Your task to perform on an android device: Go to Yahoo.com Image 0: 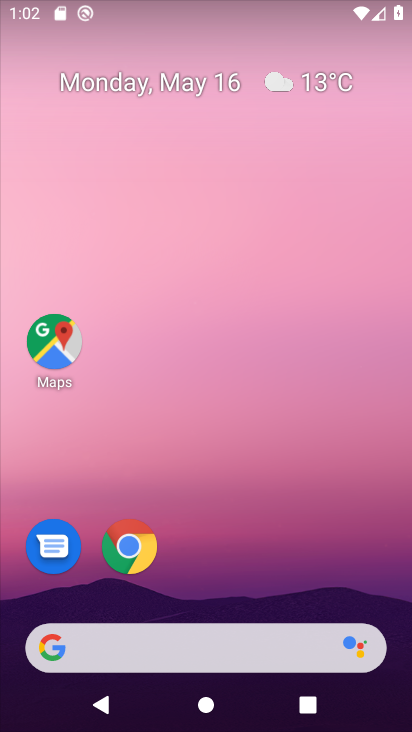
Step 0: click (131, 537)
Your task to perform on an android device: Go to Yahoo.com Image 1: 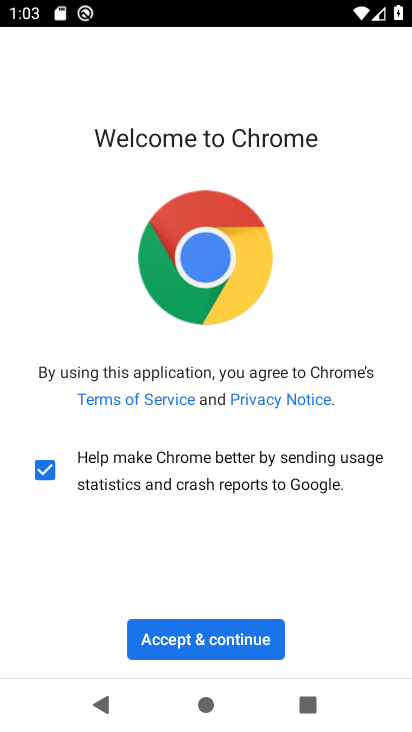
Step 1: click (234, 633)
Your task to perform on an android device: Go to Yahoo.com Image 2: 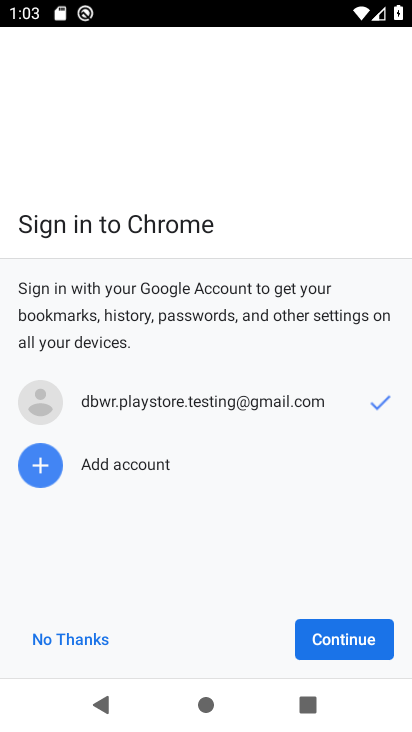
Step 2: click (353, 632)
Your task to perform on an android device: Go to Yahoo.com Image 3: 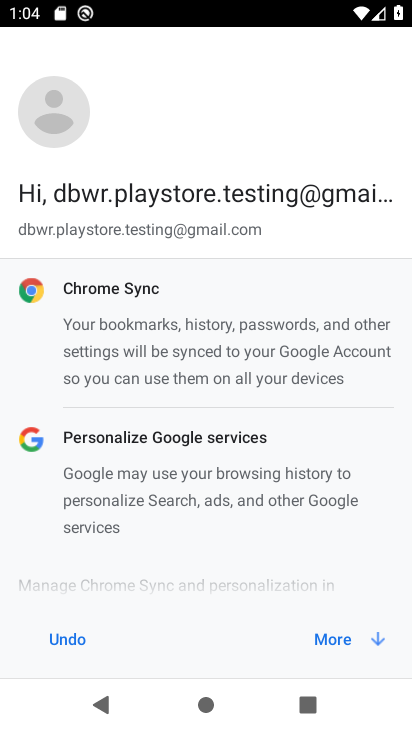
Step 3: click (314, 638)
Your task to perform on an android device: Go to Yahoo.com Image 4: 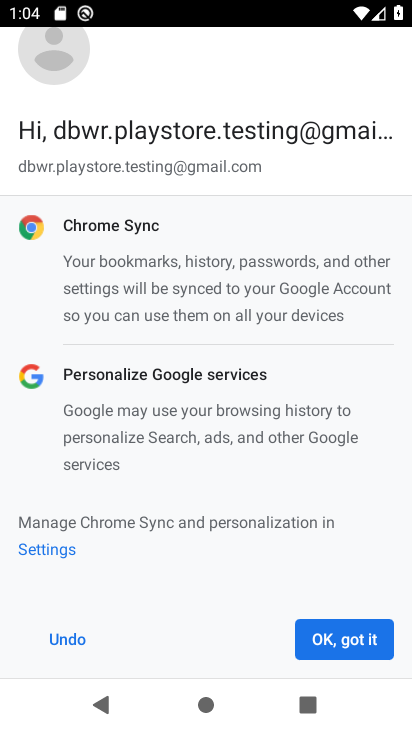
Step 4: click (333, 637)
Your task to perform on an android device: Go to Yahoo.com Image 5: 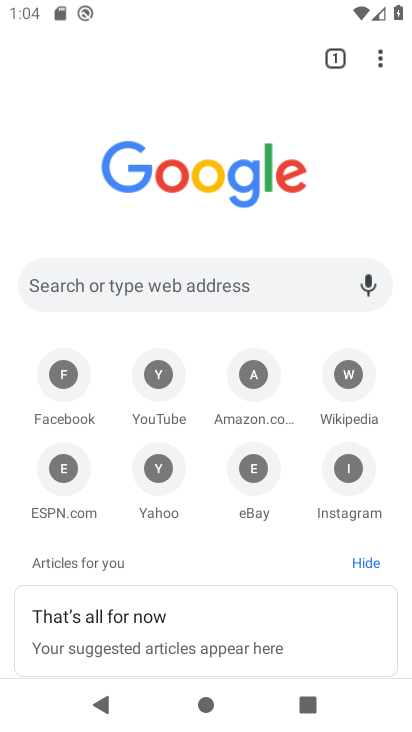
Step 5: click (222, 288)
Your task to perform on an android device: Go to Yahoo.com Image 6: 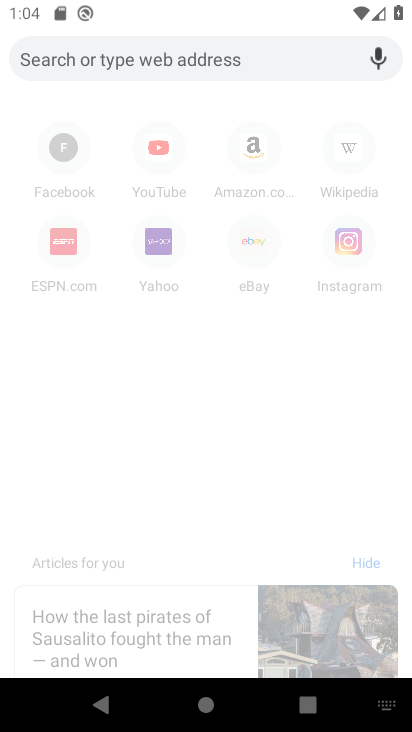
Step 6: type "yahoo.com"
Your task to perform on an android device: Go to Yahoo.com Image 7: 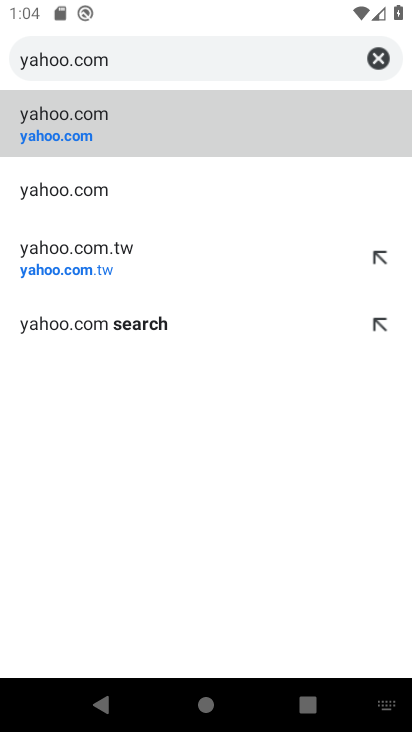
Step 7: click (80, 115)
Your task to perform on an android device: Go to Yahoo.com Image 8: 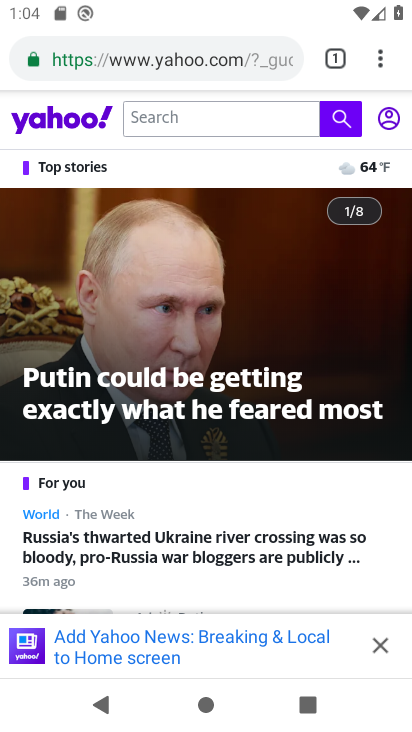
Step 8: task complete